Your task to perform on an android device: Open the map Image 0: 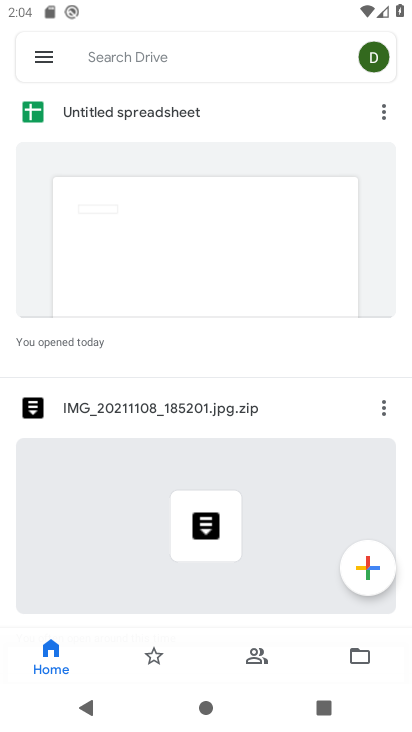
Step 0: press home button
Your task to perform on an android device: Open the map Image 1: 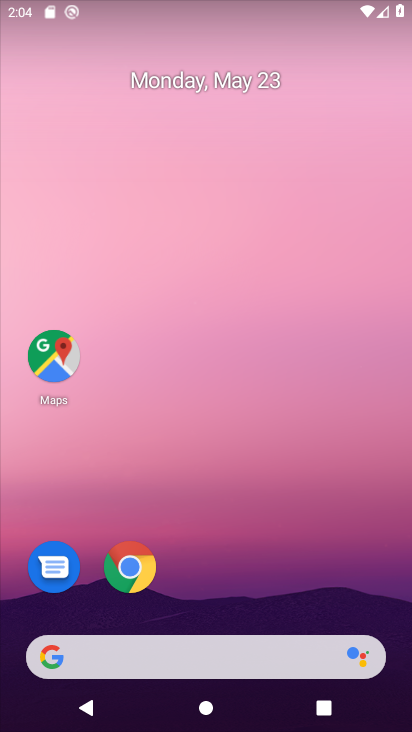
Step 1: click (64, 362)
Your task to perform on an android device: Open the map Image 2: 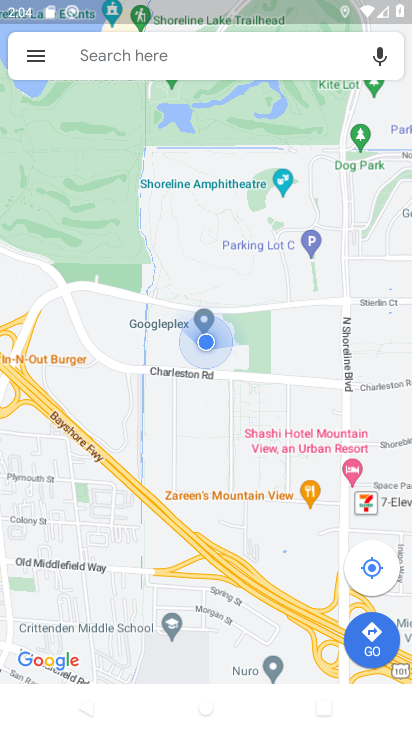
Step 2: task complete